Your task to perform on an android device: see sites visited before in the chrome app Image 0: 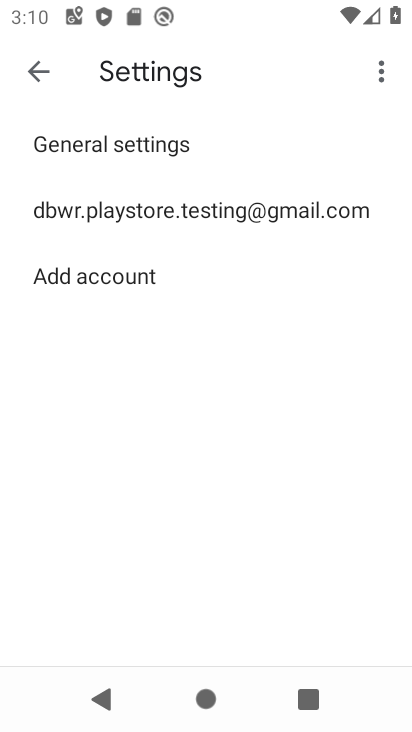
Step 0: press back button
Your task to perform on an android device: see sites visited before in the chrome app Image 1: 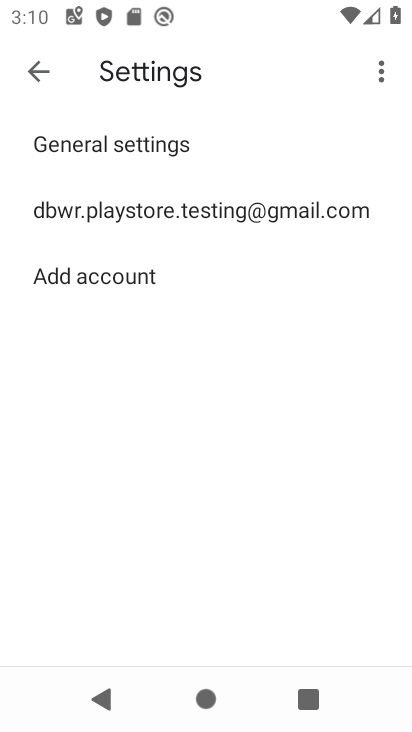
Step 1: press back button
Your task to perform on an android device: see sites visited before in the chrome app Image 2: 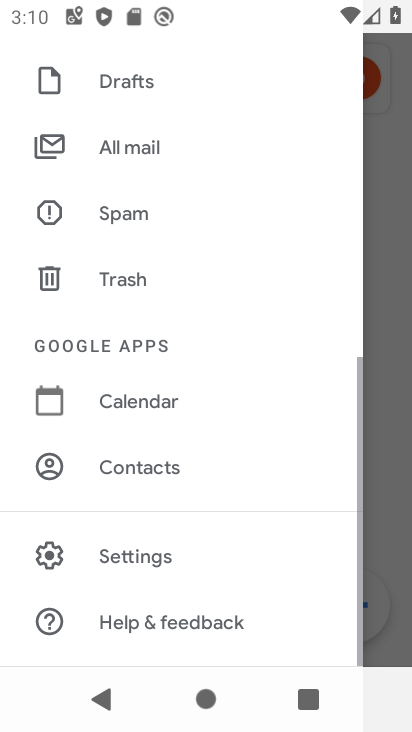
Step 2: press back button
Your task to perform on an android device: see sites visited before in the chrome app Image 3: 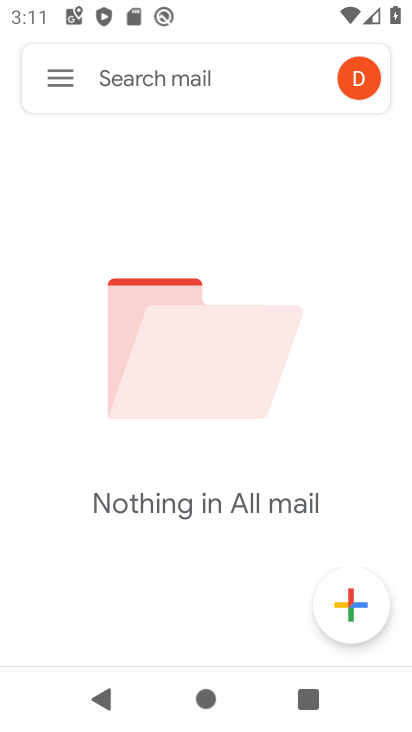
Step 3: press back button
Your task to perform on an android device: see sites visited before in the chrome app Image 4: 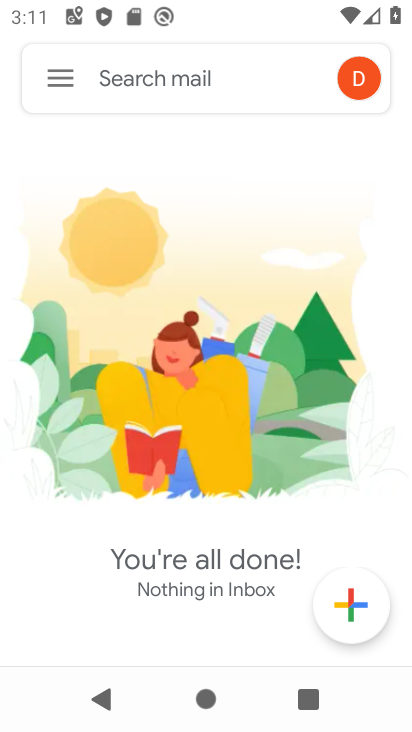
Step 4: press home button
Your task to perform on an android device: see sites visited before in the chrome app Image 5: 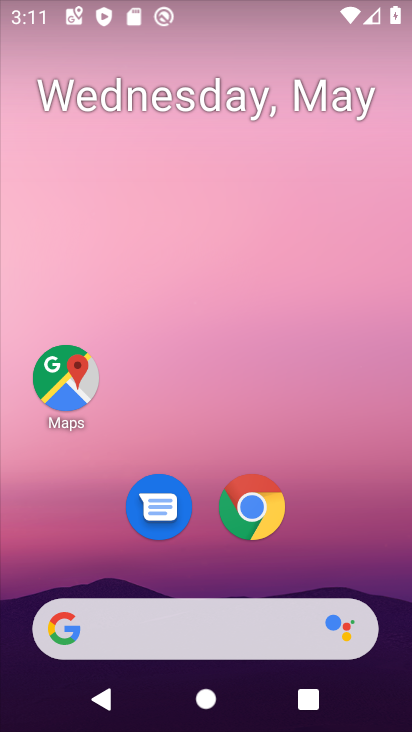
Step 5: click (260, 517)
Your task to perform on an android device: see sites visited before in the chrome app Image 6: 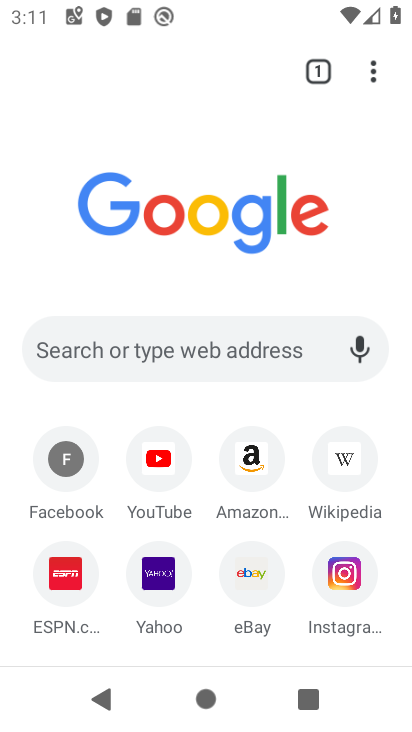
Step 6: task complete